Your task to perform on an android device: star an email in the gmail app Image 0: 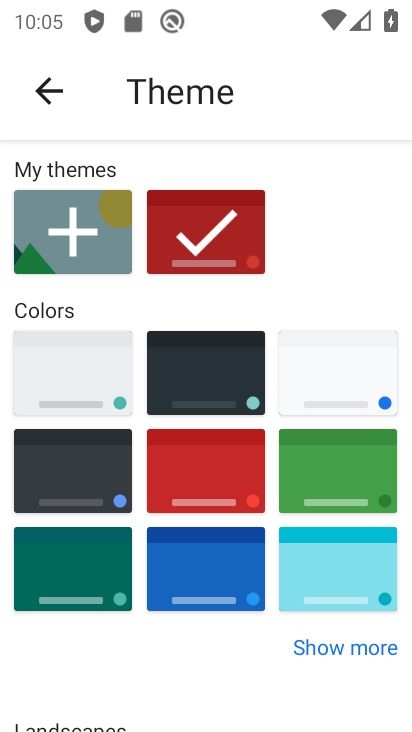
Step 0: press home button
Your task to perform on an android device: star an email in the gmail app Image 1: 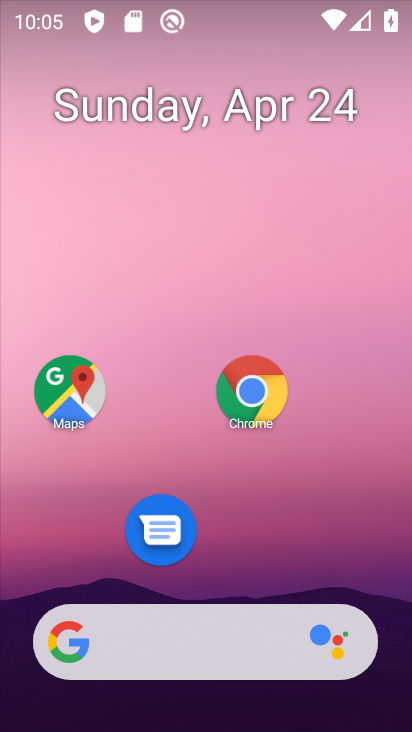
Step 1: drag from (223, 569) to (196, 250)
Your task to perform on an android device: star an email in the gmail app Image 2: 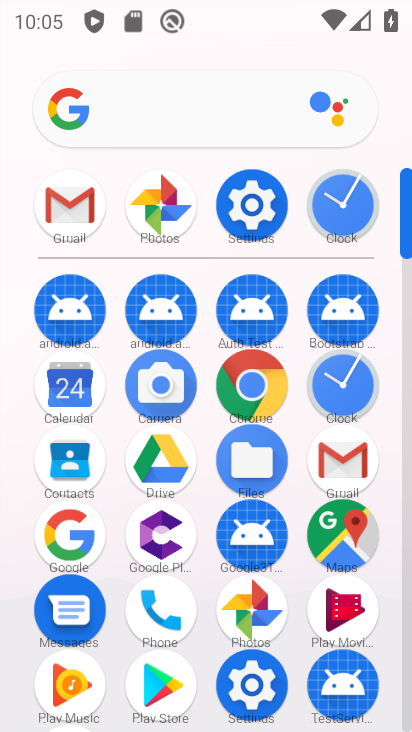
Step 2: click (71, 207)
Your task to perform on an android device: star an email in the gmail app Image 3: 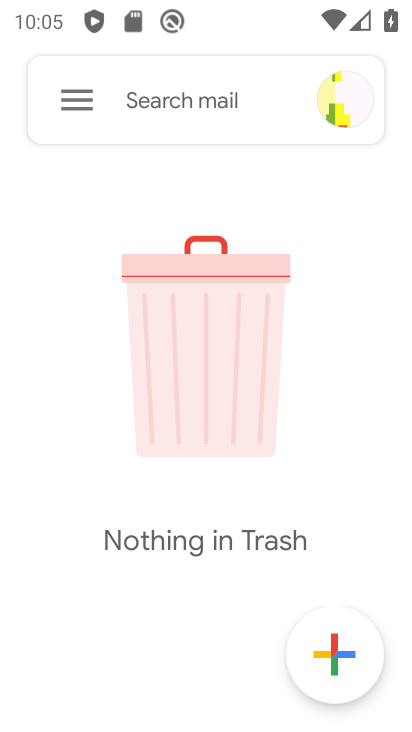
Step 3: click (74, 103)
Your task to perform on an android device: star an email in the gmail app Image 4: 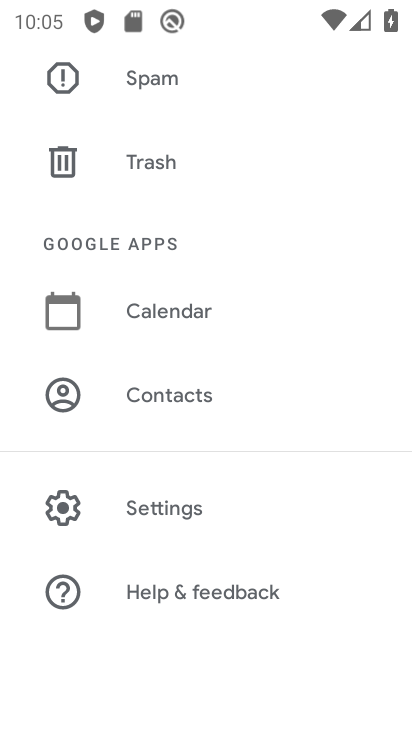
Step 4: drag from (179, 136) to (226, 632)
Your task to perform on an android device: star an email in the gmail app Image 5: 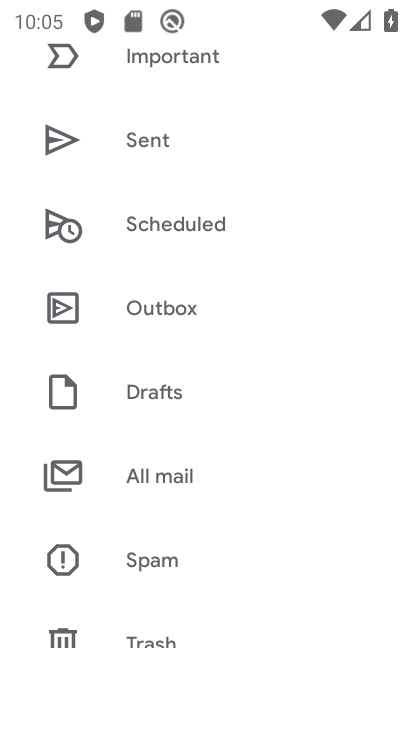
Step 5: drag from (146, 55) to (262, 585)
Your task to perform on an android device: star an email in the gmail app Image 6: 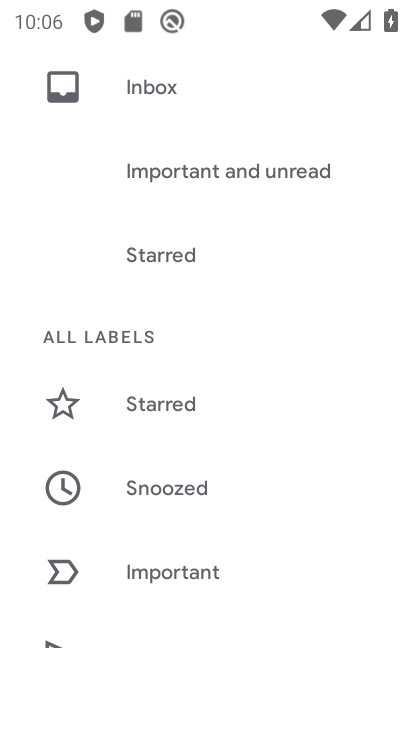
Step 6: drag from (219, 174) to (222, 250)
Your task to perform on an android device: star an email in the gmail app Image 7: 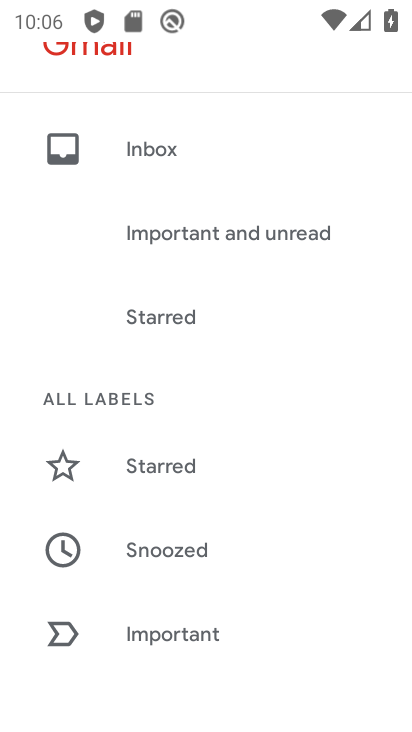
Step 7: click (161, 150)
Your task to perform on an android device: star an email in the gmail app Image 8: 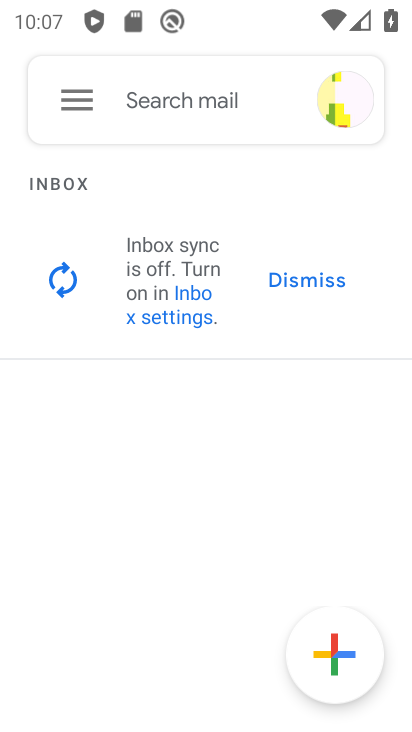
Step 8: task complete